Your task to perform on an android device: toggle data saver in the chrome app Image 0: 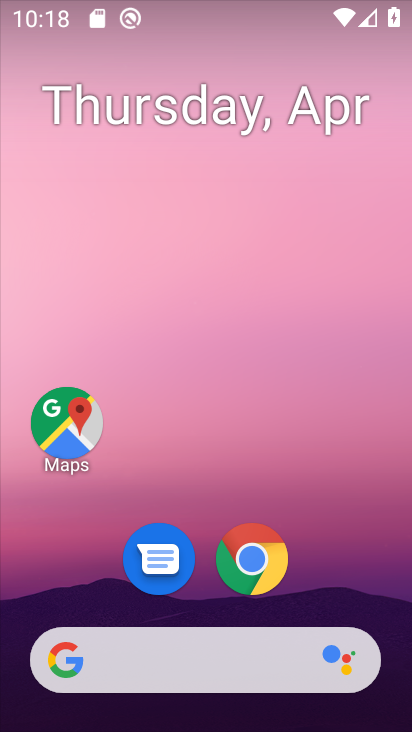
Step 0: drag from (271, 693) to (408, 98)
Your task to perform on an android device: toggle data saver in the chrome app Image 1: 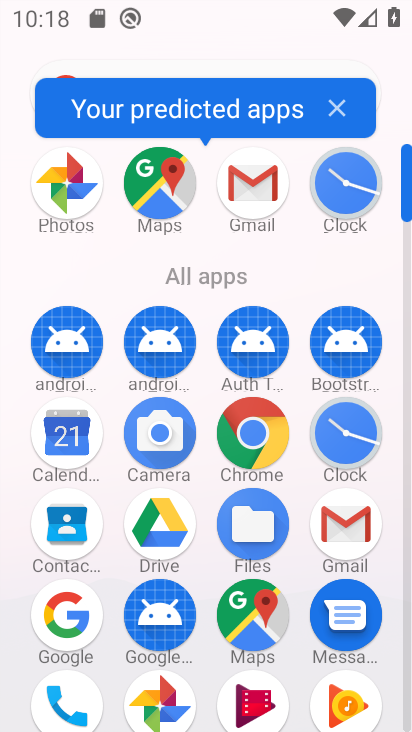
Step 1: click (253, 443)
Your task to perform on an android device: toggle data saver in the chrome app Image 2: 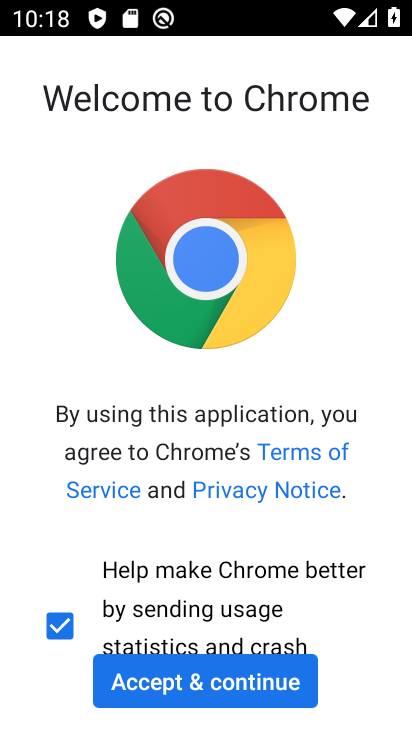
Step 2: click (240, 675)
Your task to perform on an android device: toggle data saver in the chrome app Image 3: 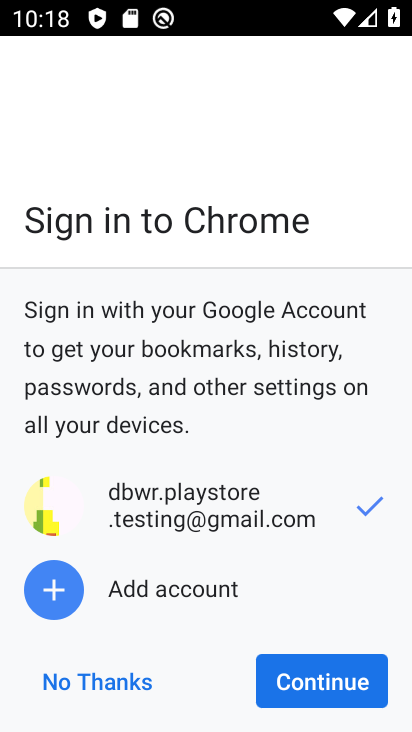
Step 3: click (334, 688)
Your task to perform on an android device: toggle data saver in the chrome app Image 4: 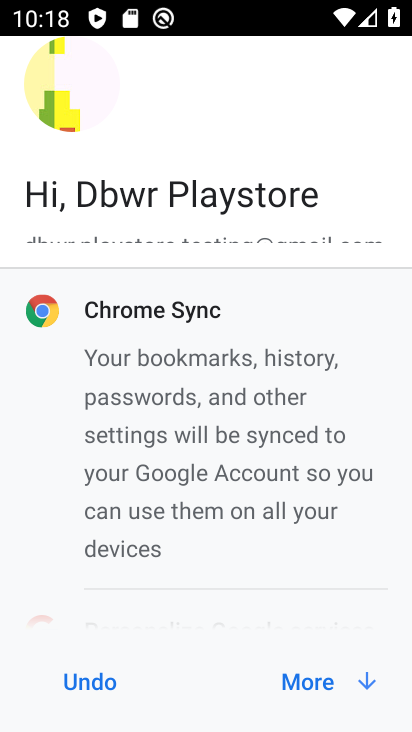
Step 4: click (334, 688)
Your task to perform on an android device: toggle data saver in the chrome app Image 5: 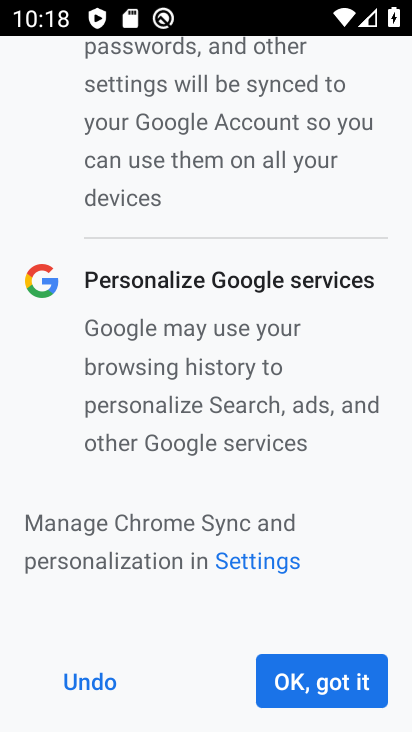
Step 5: click (335, 691)
Your task to perform on an android device: toggle data saver in the chrome app Image 6: 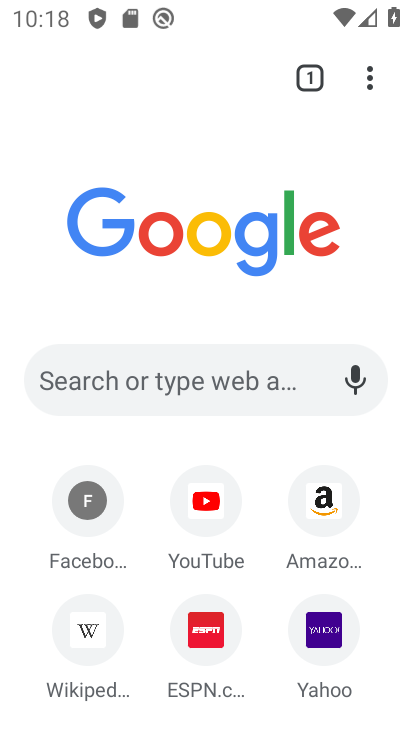
Step 6: click (377, 73)
Your task to perform on an android device: toggle data saver in the chrome app Image 7: 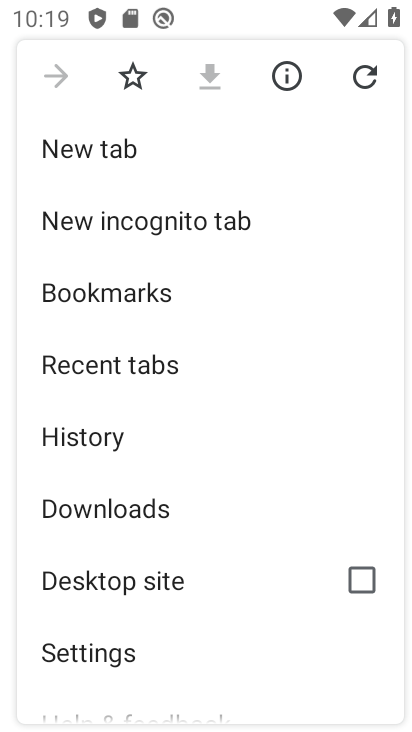
Step 7: click (90, 642)
Your task to perform on an android device: toggle data saver in the chrome app Image 8: 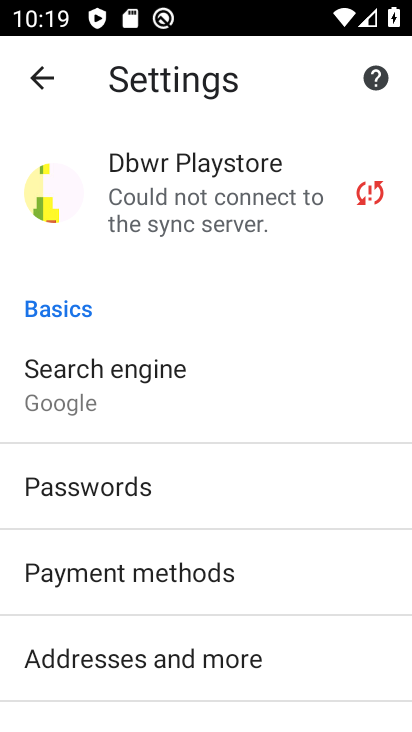
Step 8: drag from (66, 637) to (79, 453)
Your task to perform on an android device: toggle data saver in the chrome app Image 9: 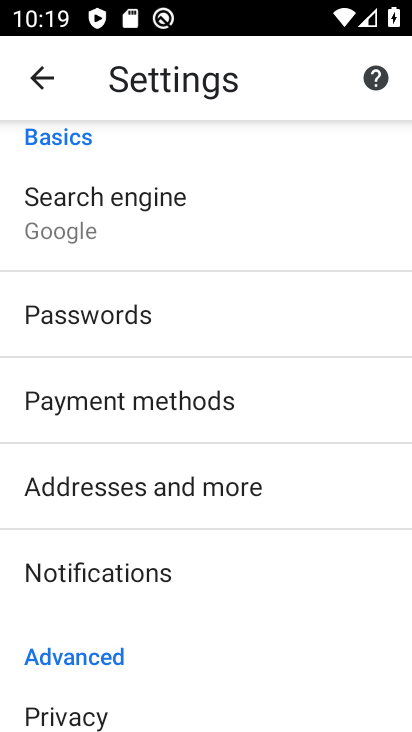
Step 9: drag from (107, 565) to (203, 188)
Your task to perform on an android device: toggle data saver in the chrome app Image 10: 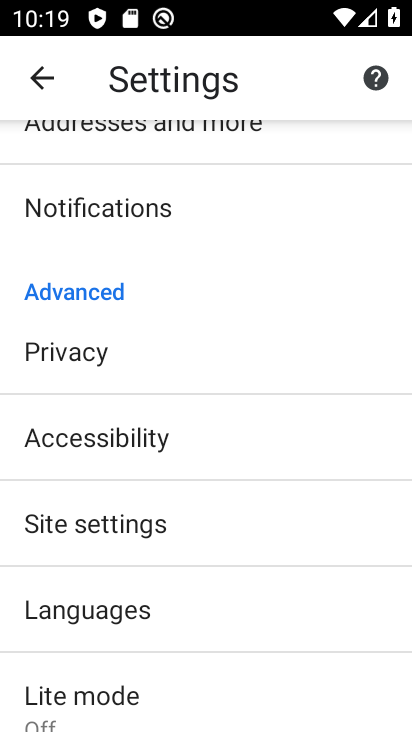
Step 10: drag from (109, 596) to (121, 451)
Your task to perform on an android device: toggle data saver in the chrome app Image 11: 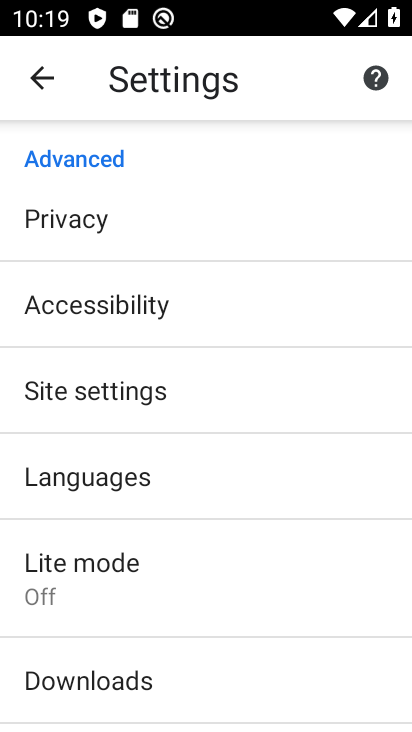
Step 11: click (81, 588)
Your task to perform on an android device: toggle data saver in the chrome app Image 12: 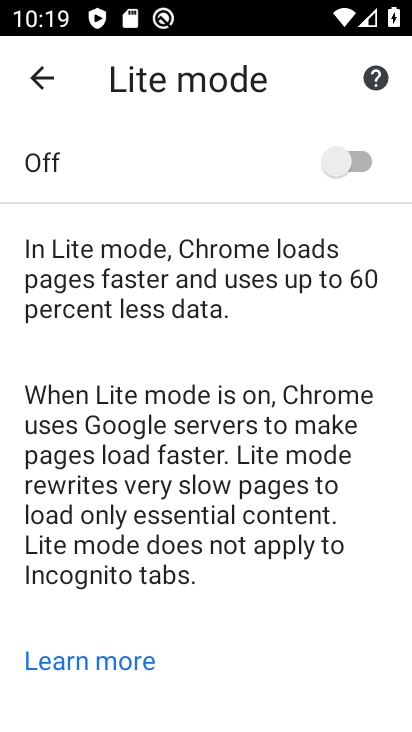
Step 12: click (335, 169)
Your task to perform on an android device: toggle data saver in the chrome app Image 13: 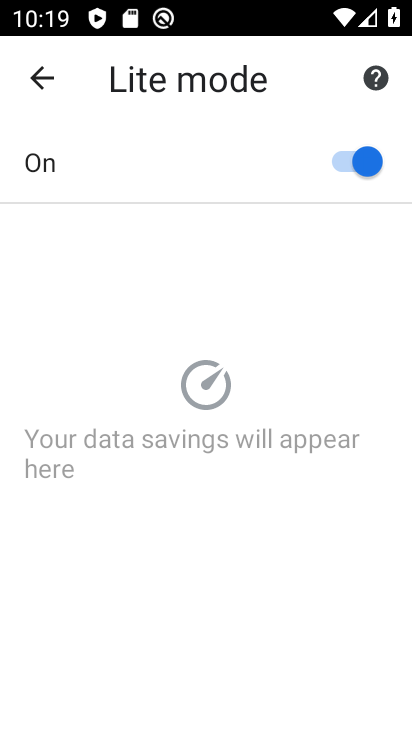
Step 13: task complete